Your task to perform on an android device: see creations saved in the google photos Image 0: 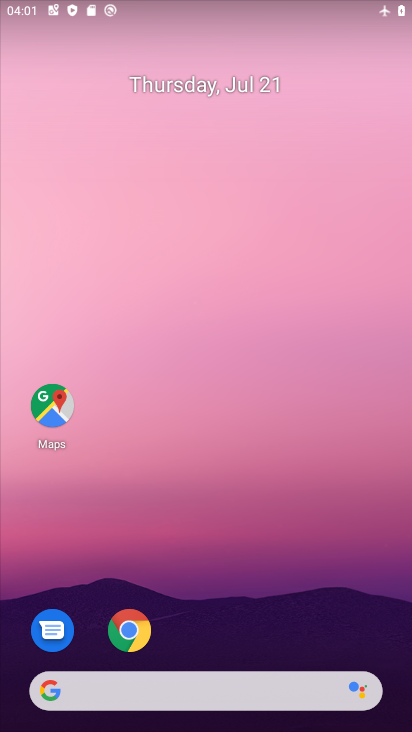
Step 0: drag from (290, 450) to (243, 65)
Your task to perform on an android device: see creations saved in the google photos Image 1: 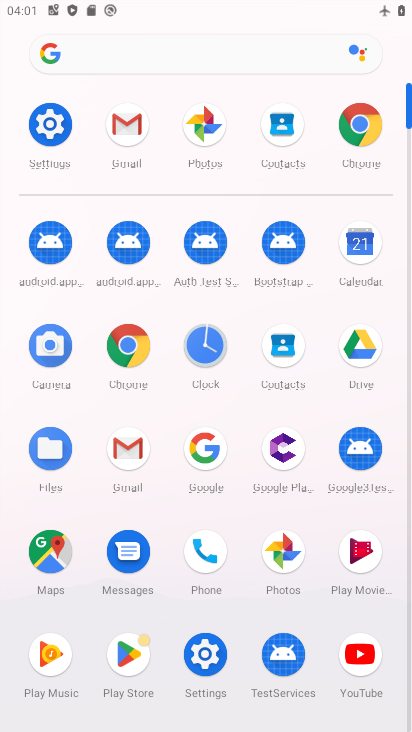
Step 1: click (201, 133)
Your task to perform on an android device: see creations saved in the google photos Image 2: 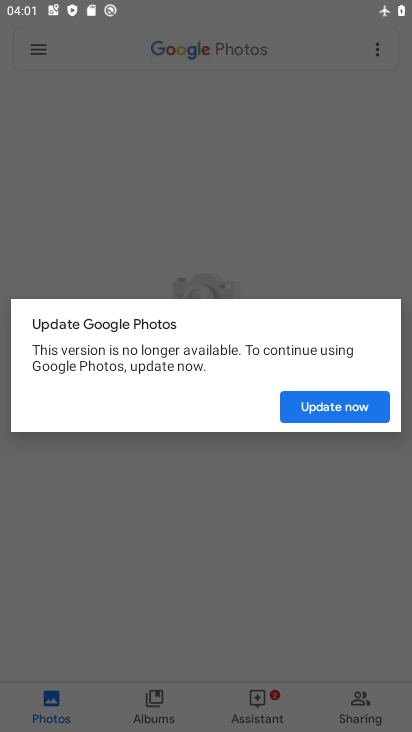
Step 2: click (333, 407)
Your task to perform on an android device: see creations saved in the google photos Image 3: 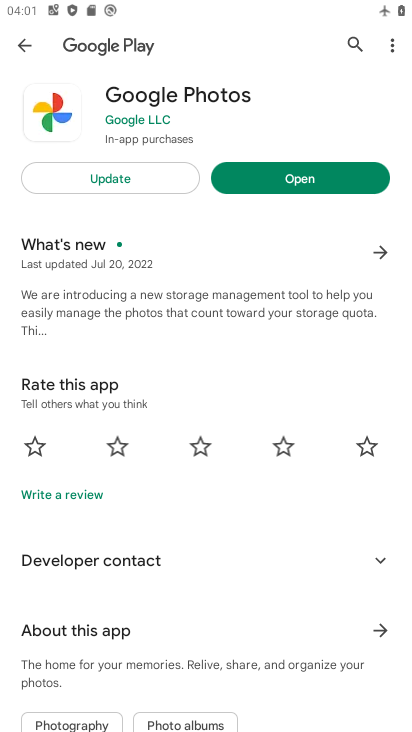
Step 3: click (276, 156)
Your task to perform on an android device: see creations saved in the google photos Image 4: 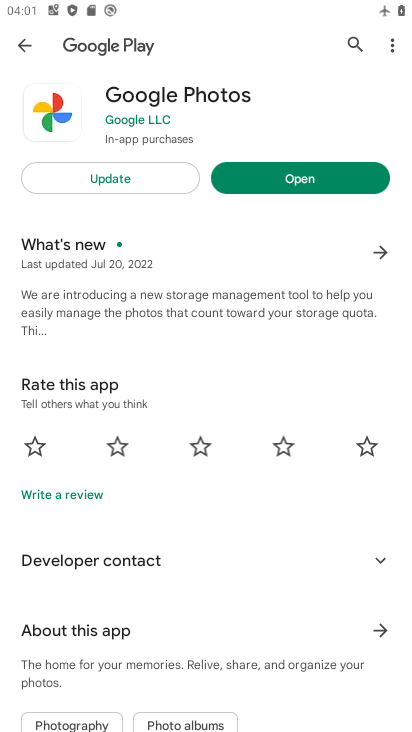
Step 4: click (277, 175)
Your task to perform on an android device: see creations saved in the google photos Image 5: 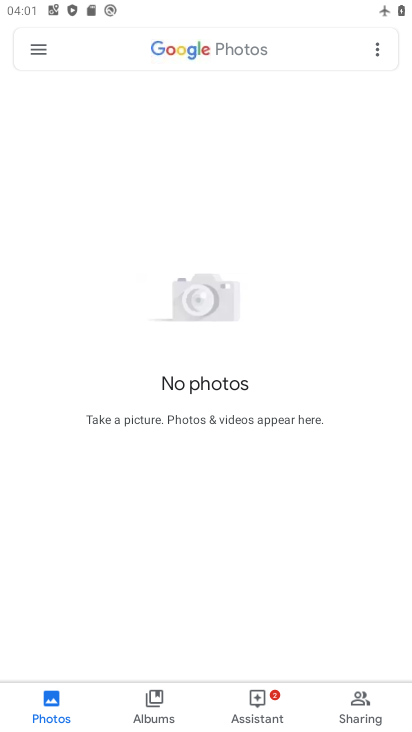
Step 5: task complete